Your task to perform on an android device: Go to wifi settings Image 0: 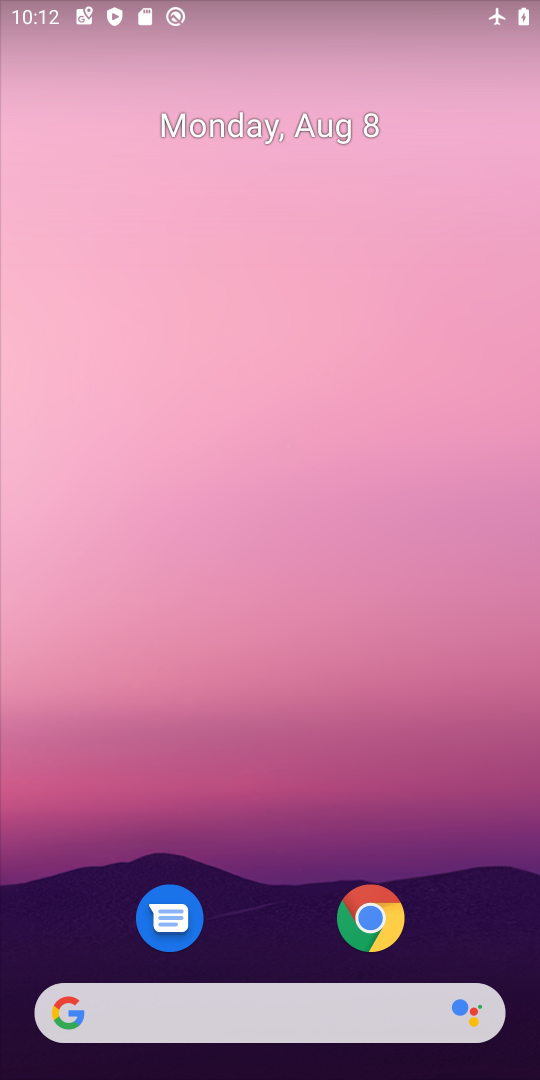
Step 0: drag from (214, 947) to (208, 326)
Your task to perform on an android device: Go to wifi settings Image 1: 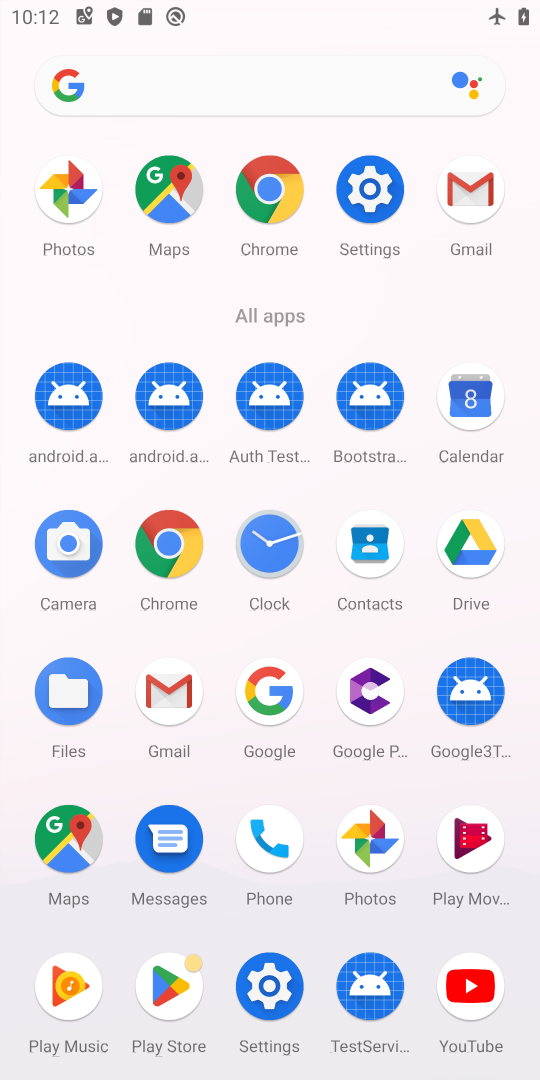
Step 1: click (257, 992)
Your task to perform on an android device: Go to wifi settings Image 2: 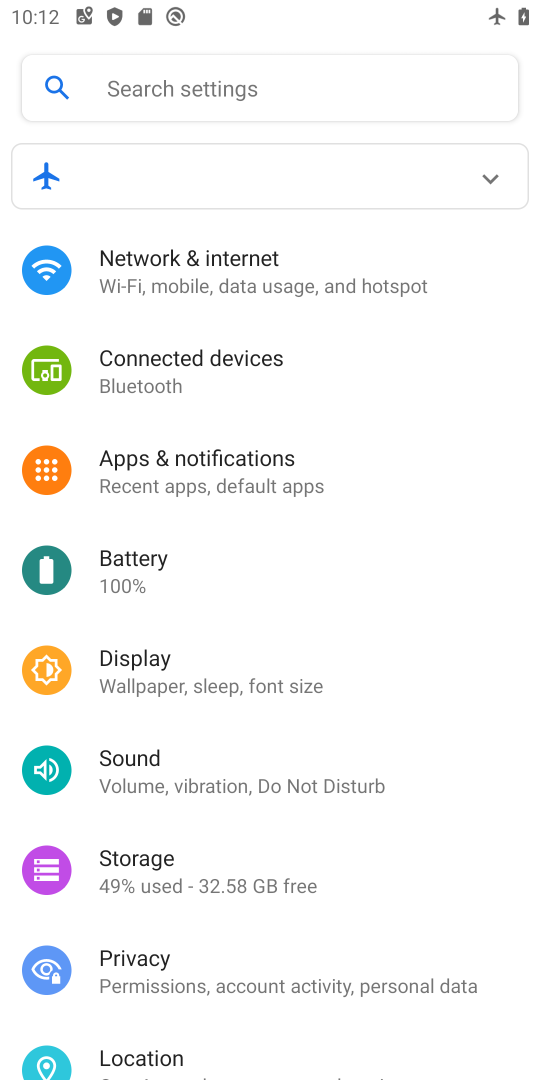
Step 2: click (172, 289)
Your task to perform on an android device: Go to wifi settings Image 3: 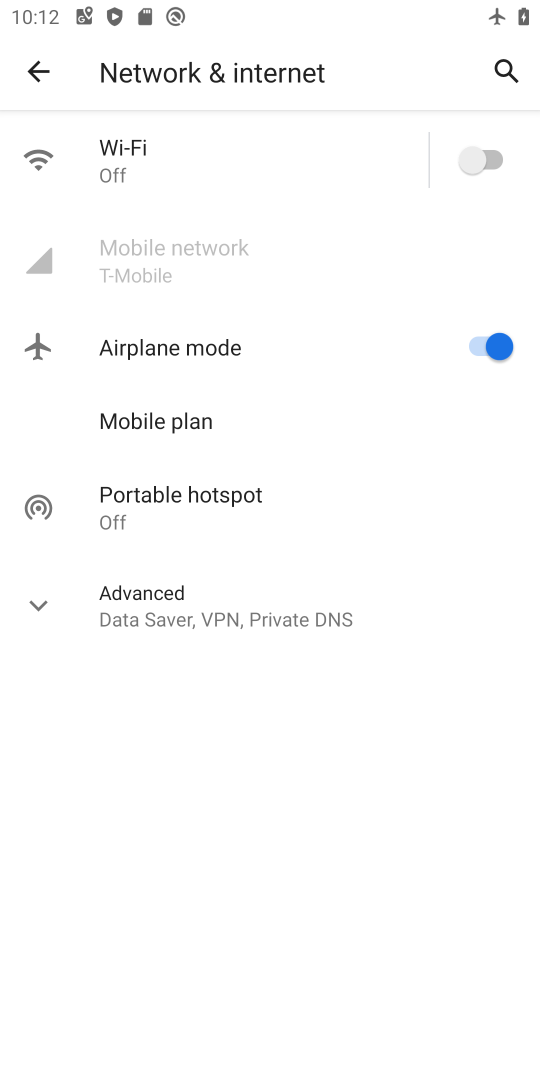
Step 3: click (104, 174)
Your task to perform on an android device: Go to wifi settings Image 4: 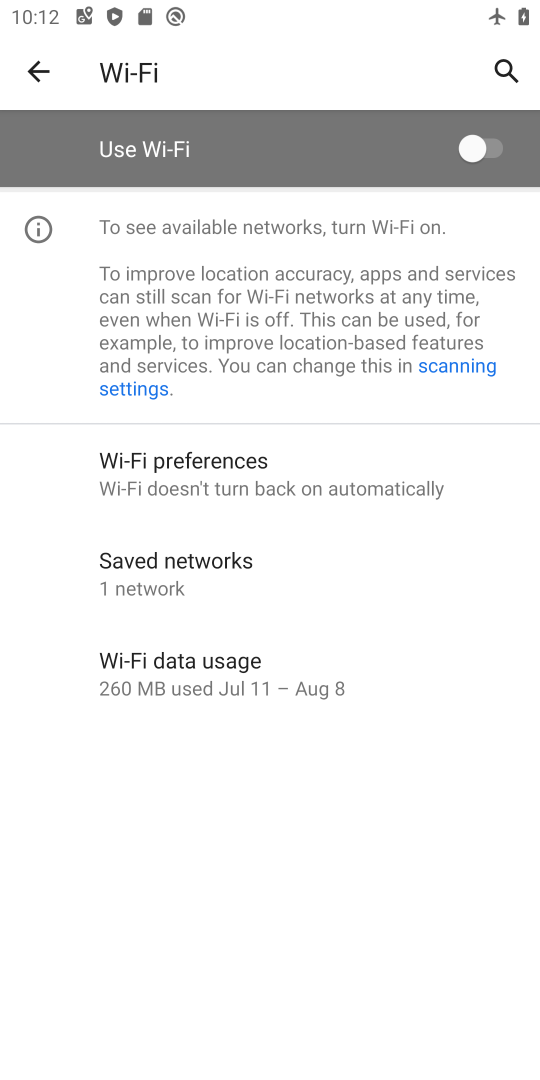
Step 4: task complete